Your task to perform on an android device: delete a single message in the gmail app Image 0: 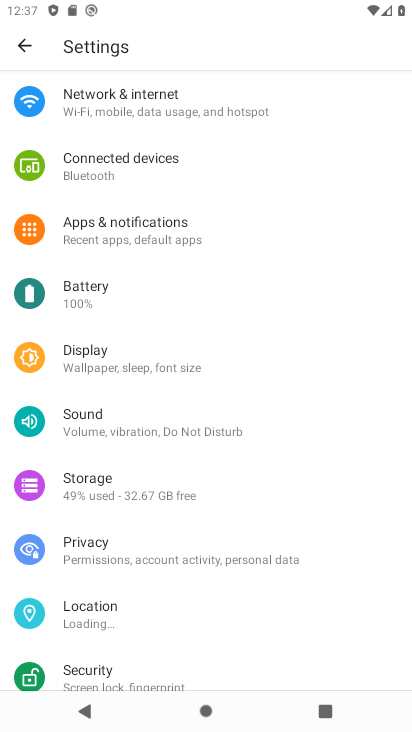
Step 0: press home button
Your task to perform on an android device: delete a single message in the gmail app Image 1: 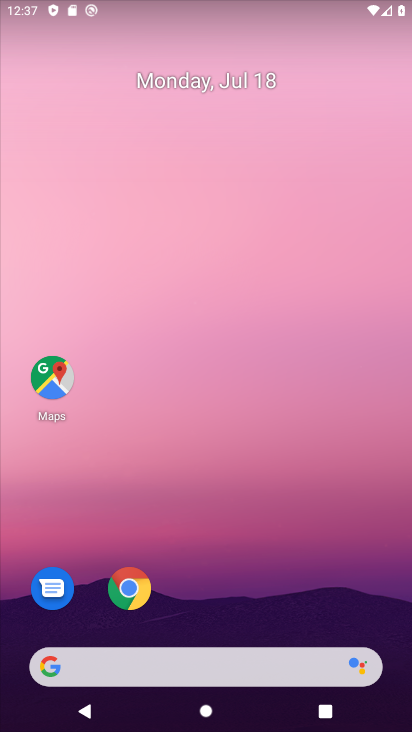
Step 1: drag from (289, 625) to (259, 13)
Your task to perform on an android device: delete a single message in the gmail app Image 2: 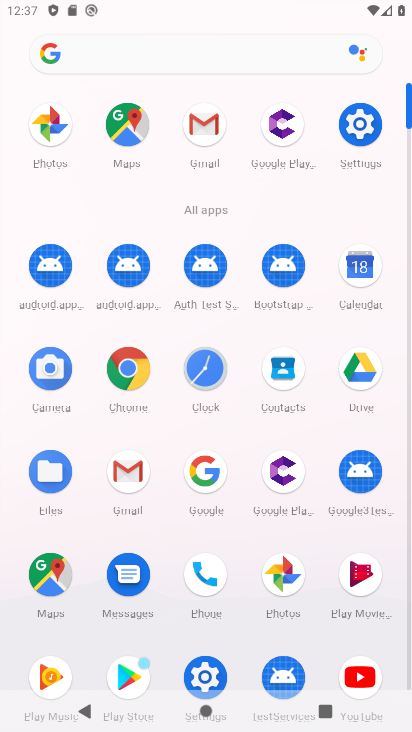
Step 2: click (197, 134)
Your task to perform on an android device: delete a single message in the gmail app Image 3: 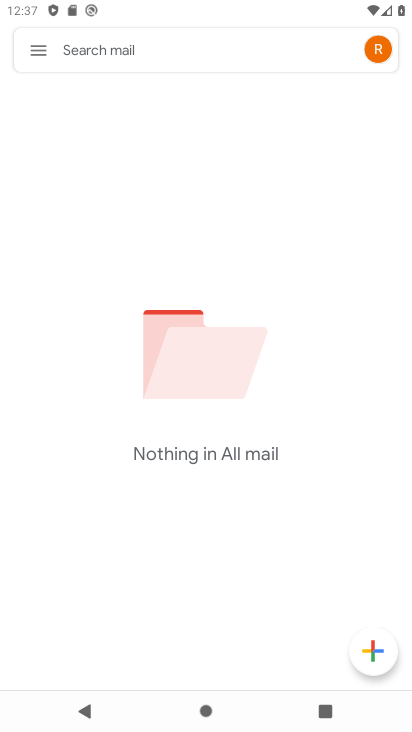
Step 3: task complete